Your task to perform on an android device: Open wifi settings Image 0: 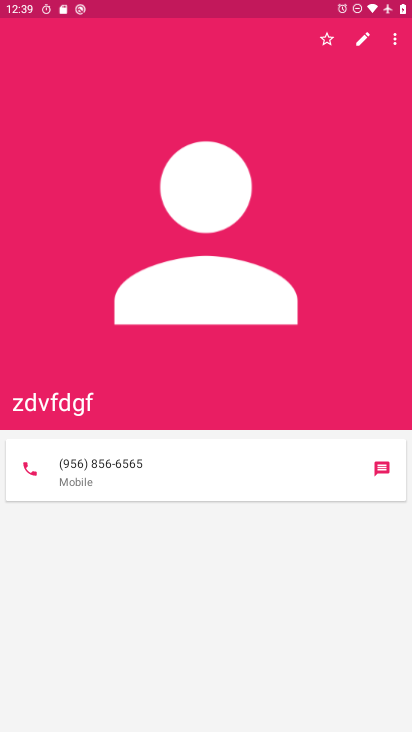
Step 0: press home button
Your task to perform on an android device: Open wifi settings Image 1: 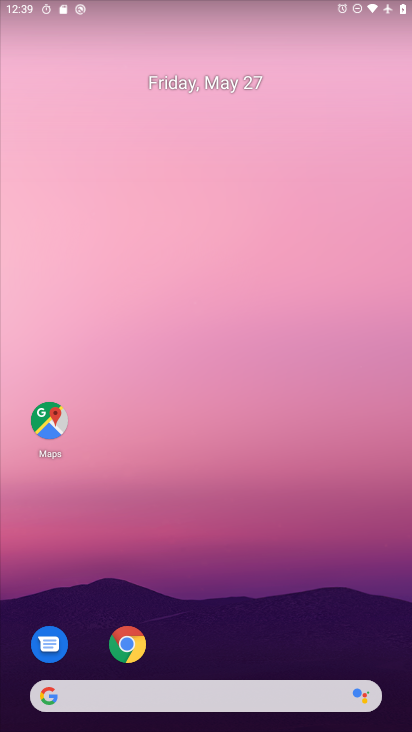
Step 1: drag from (203, 648) to (220, 314)
Your task to perform on an android device: Open wifi settings Image 2: 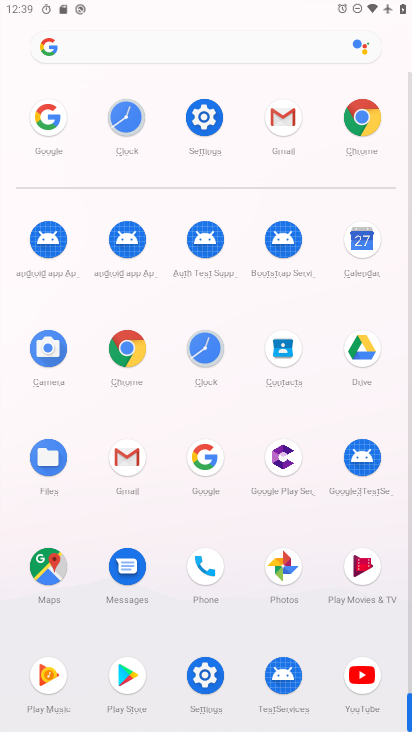
Step 2: click (173, 118)
Your task to perform on an android device: Open wifi settings Image 3: 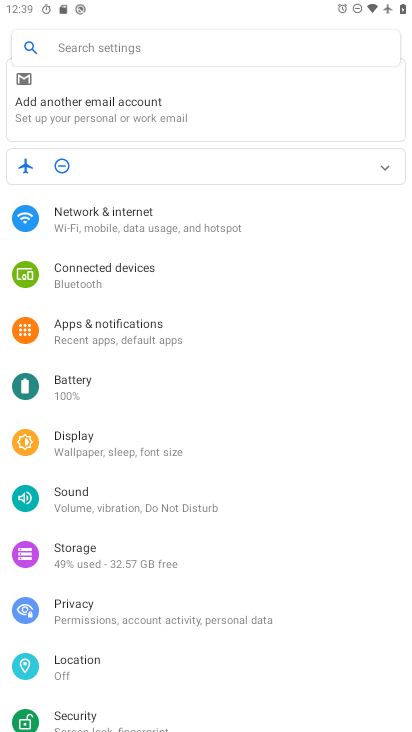
Step 3: click (136, 232)
Your task to perform on an android device: Open wifi settings Image 4: 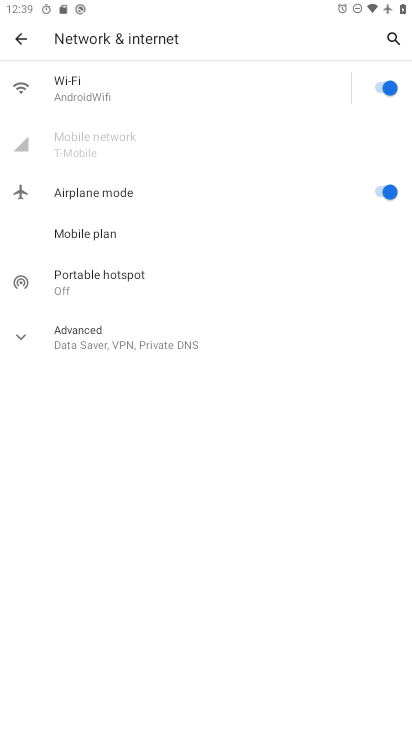
Step 4: click (119, 96)
Your task to perform on an android device: Open wifi settings Image 5: 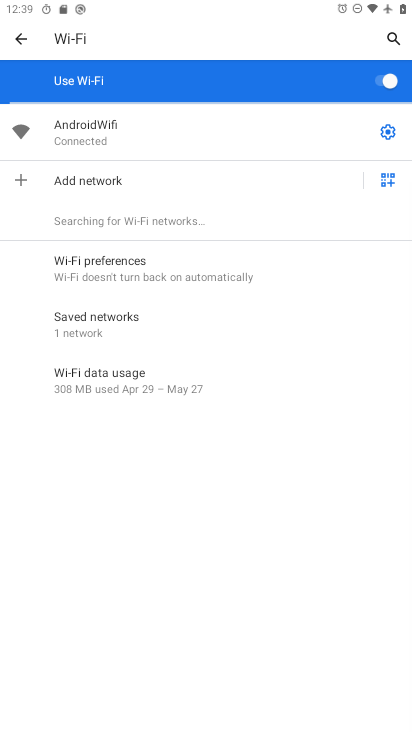
Step 5: task complete